Your task to perform on an android device: open app "Google Docs" (install if not already installed) Image 0: 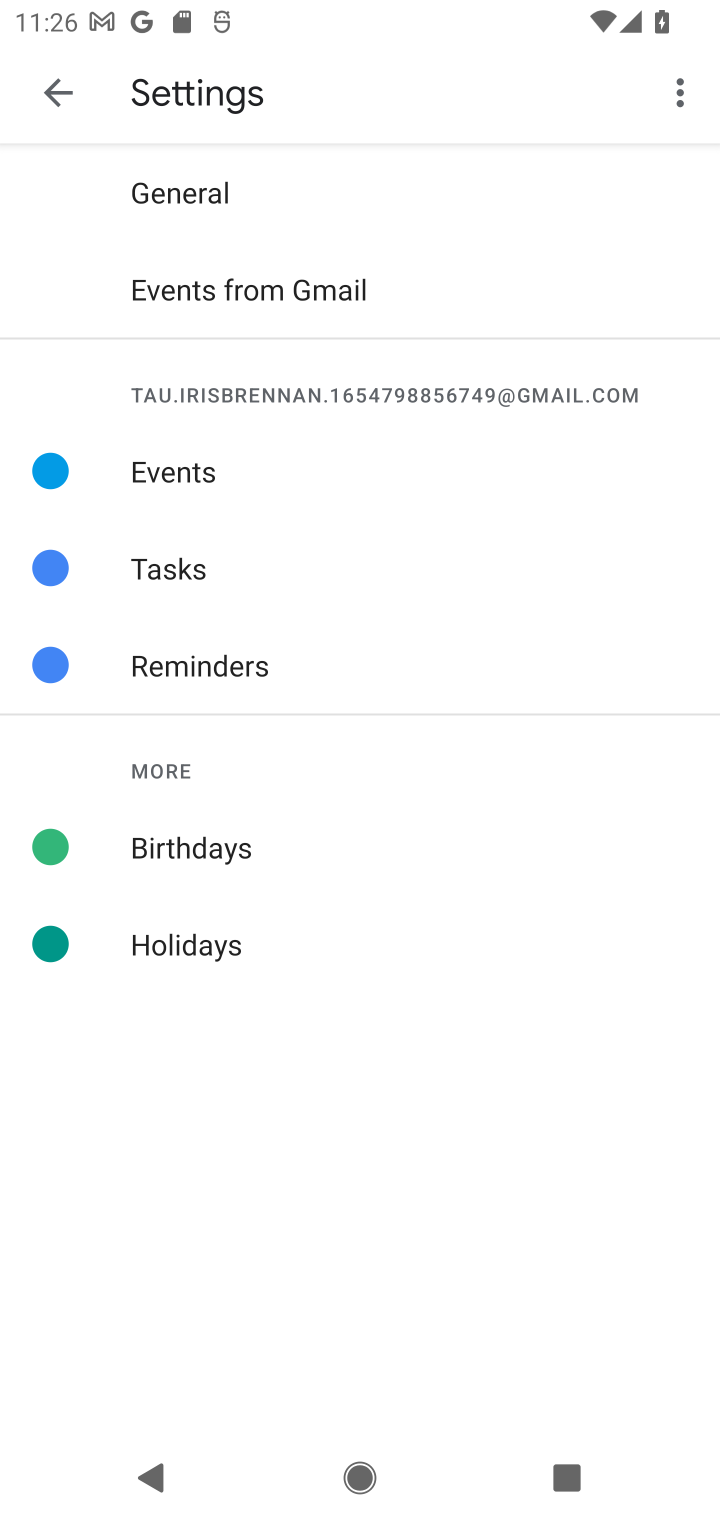
Step 0: press home button
Your task to perform on an android device: open app "Google Docs" (install if not already installed) Image 1: 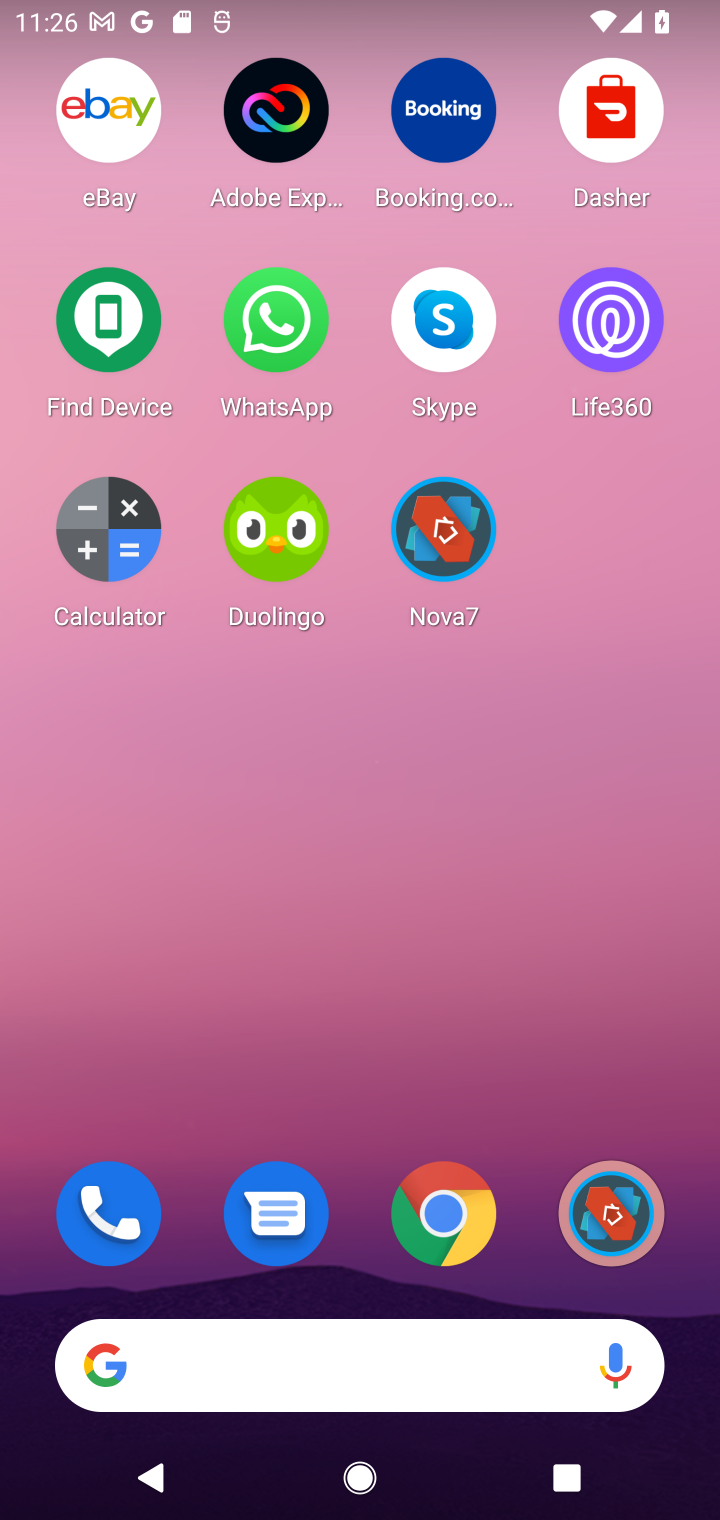
Step 1: drag from (290, 1321) to (328, 82)
Your task to perform on an android device: open app "Google Docs" (install if not already installed) Image 2: 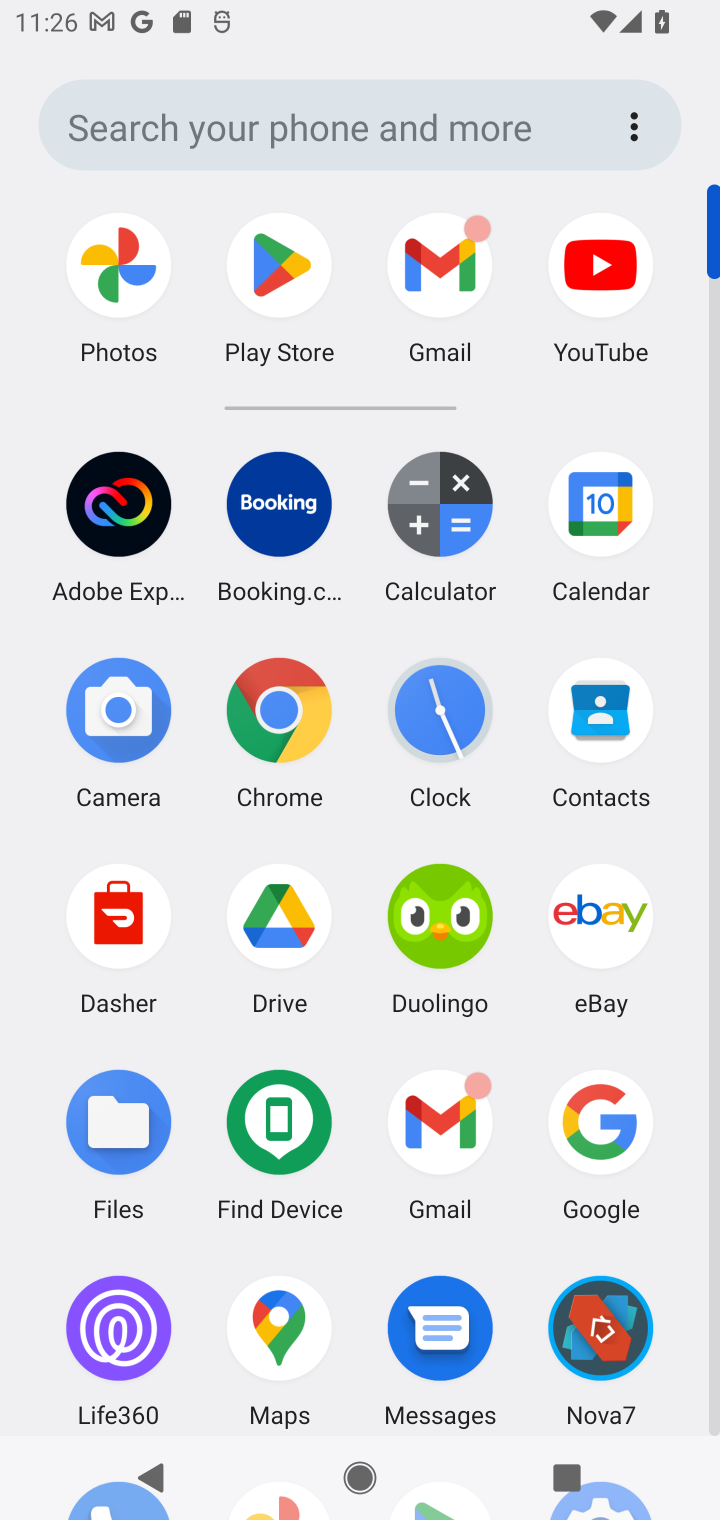
Step 2: click (287, 270)
Your task to perform on an android device: open app "Google Docs" (install if not already installed) Image 3: 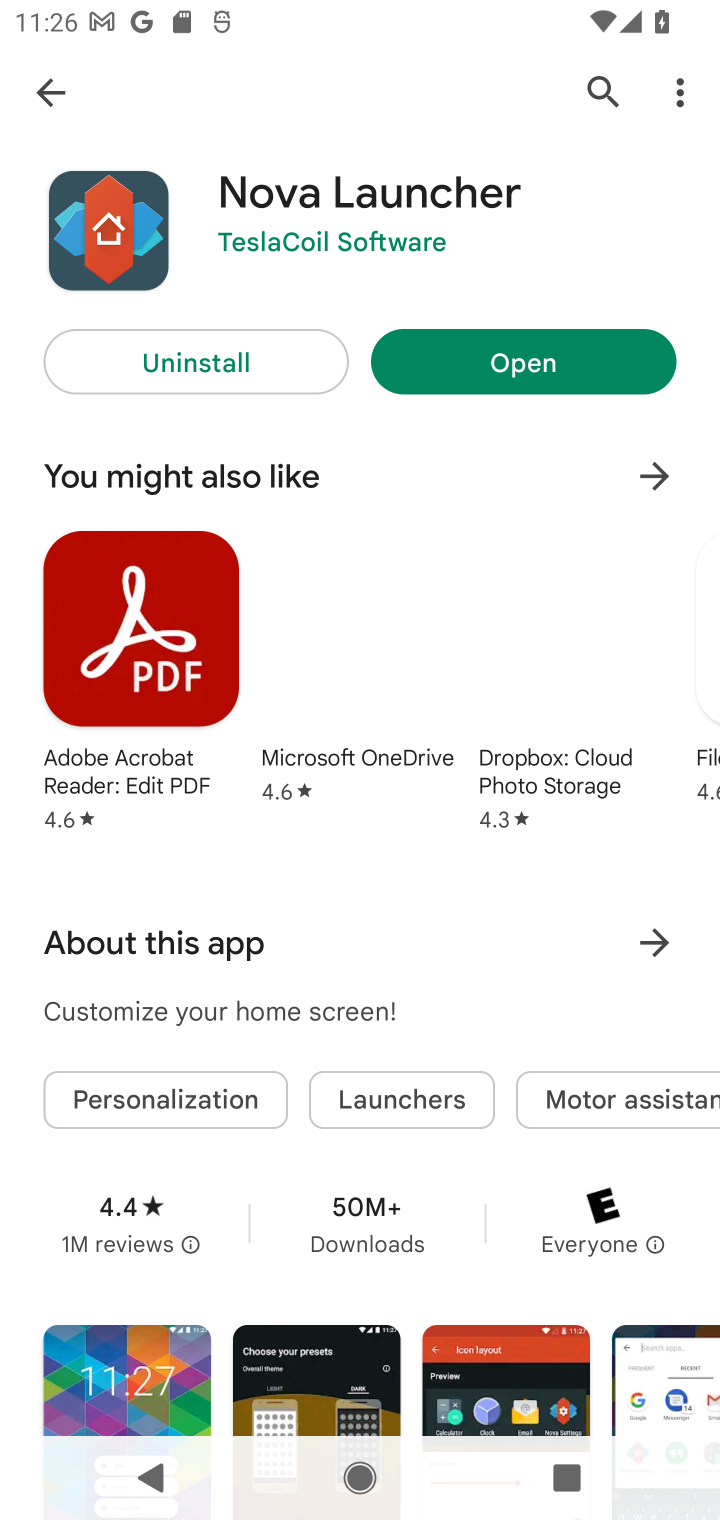
Step 3: press back button
Your task to perform on an android device: open app "Google Docs" (install if not already installed) Image 4: 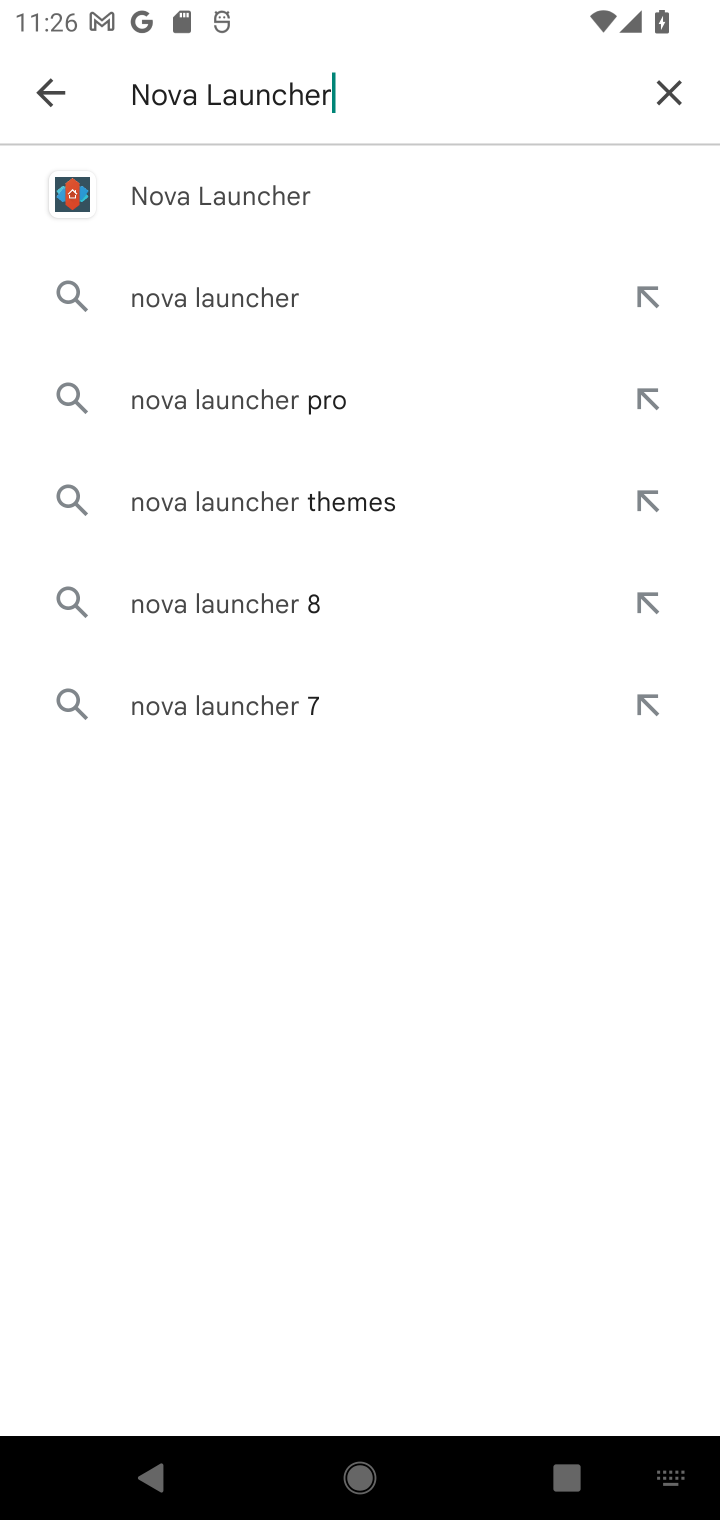
Step 4: press back button
Your task to perform on an android device: open app "Google Docs" (install if not already installed) Image 5: 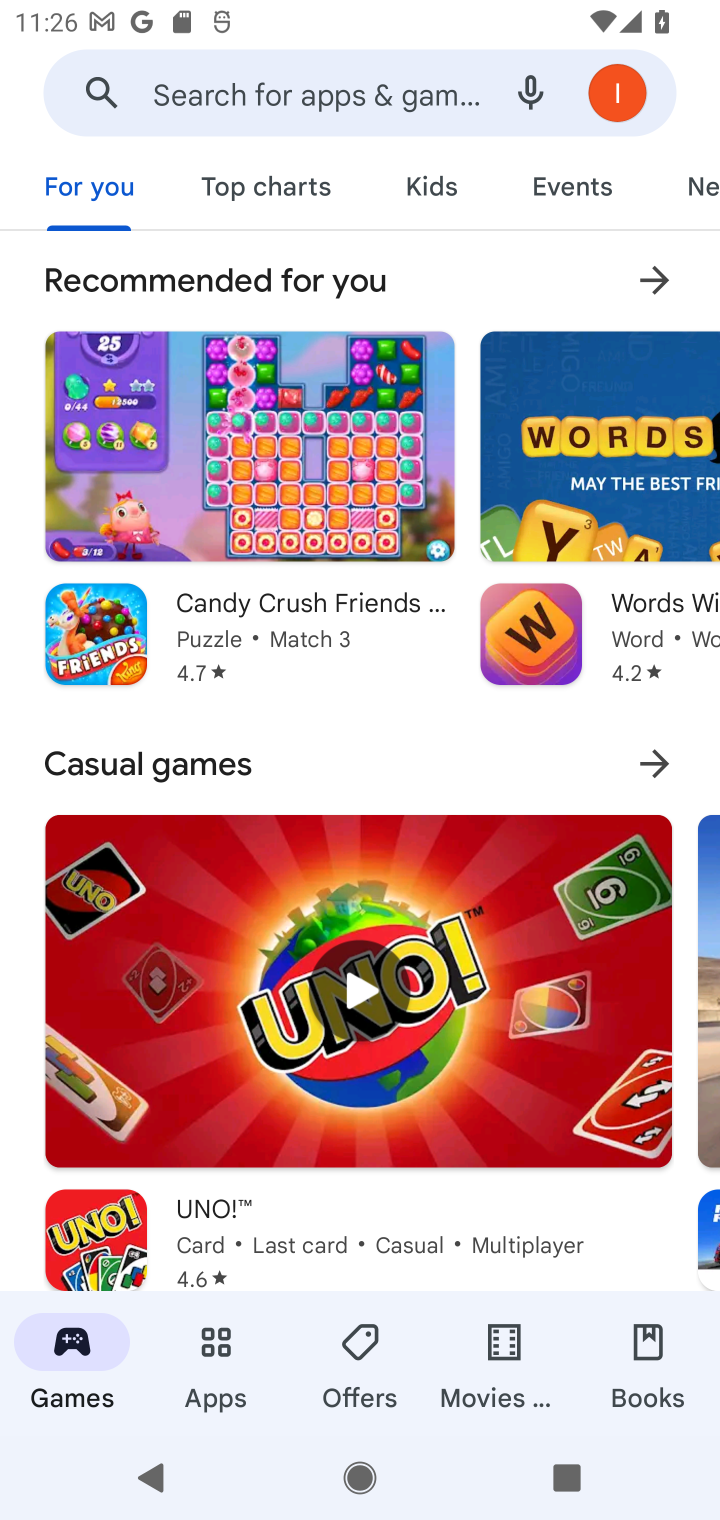
Step 5: click (412, 98)
Your task to perform on an android device: open app "Google Docs" (install if not already installed) Image 6: 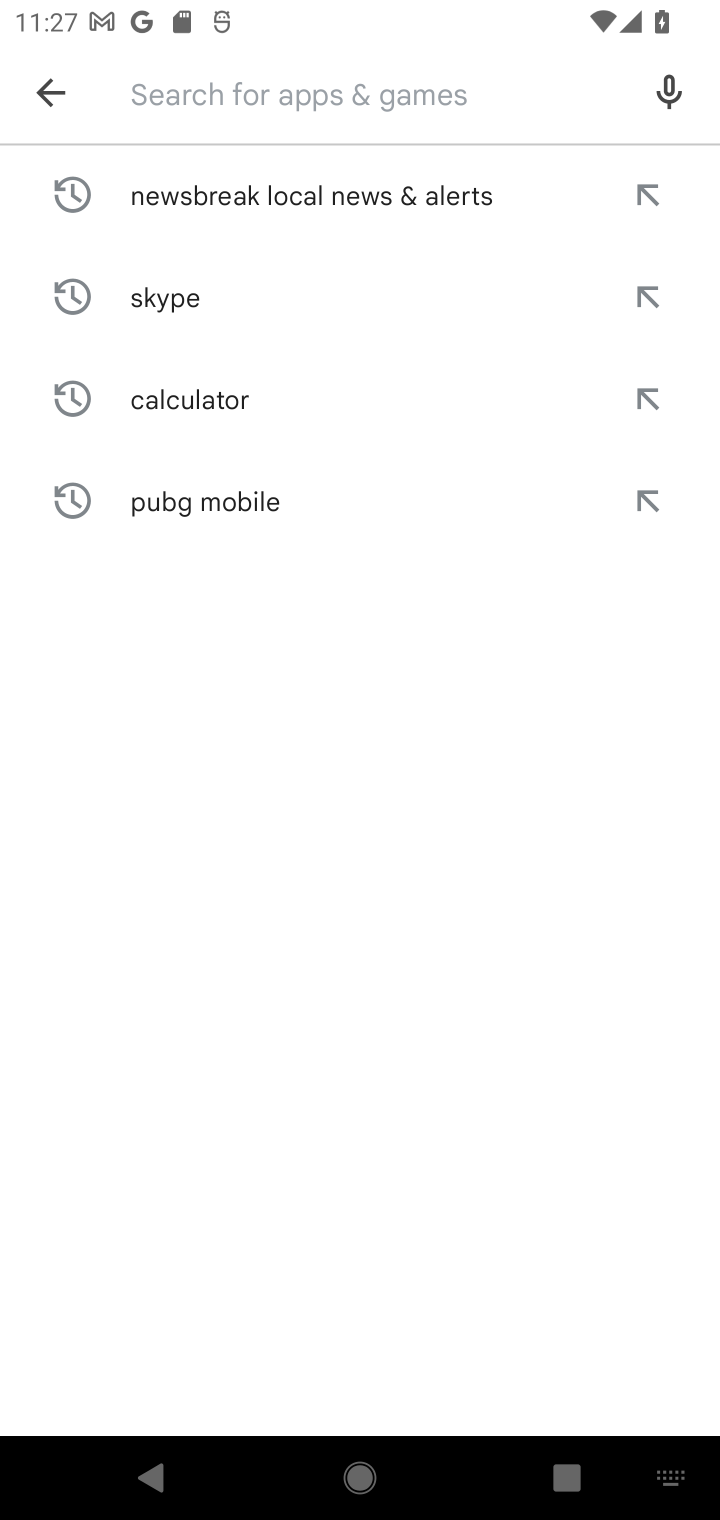
Step 6: type "Google Docs"
Your task to perform on an android device: open app "Google Docs" (install if not already installed) Image 7: 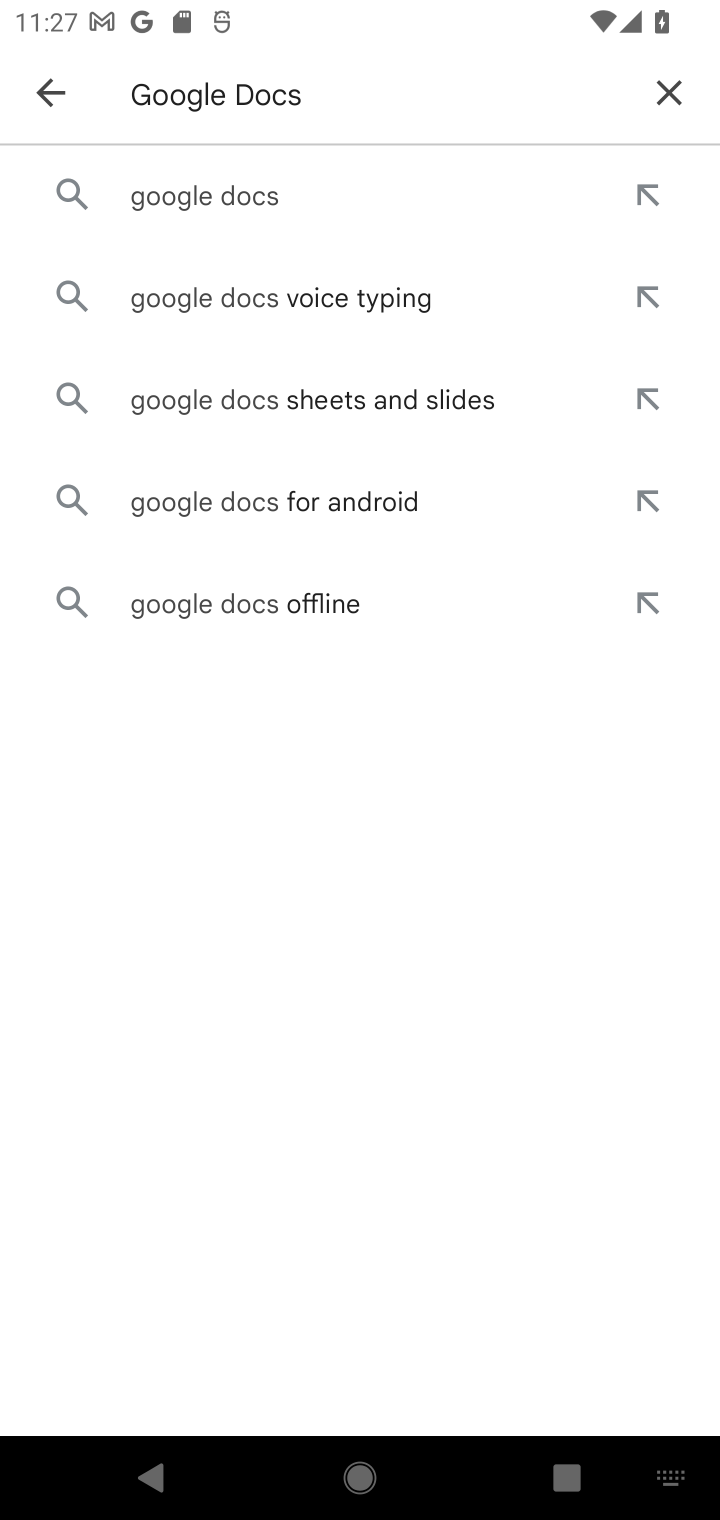
Step 7: click (233, 209)
Your task to perform on an android device: open app "Google Docs" (install if not already installed) Image 8: 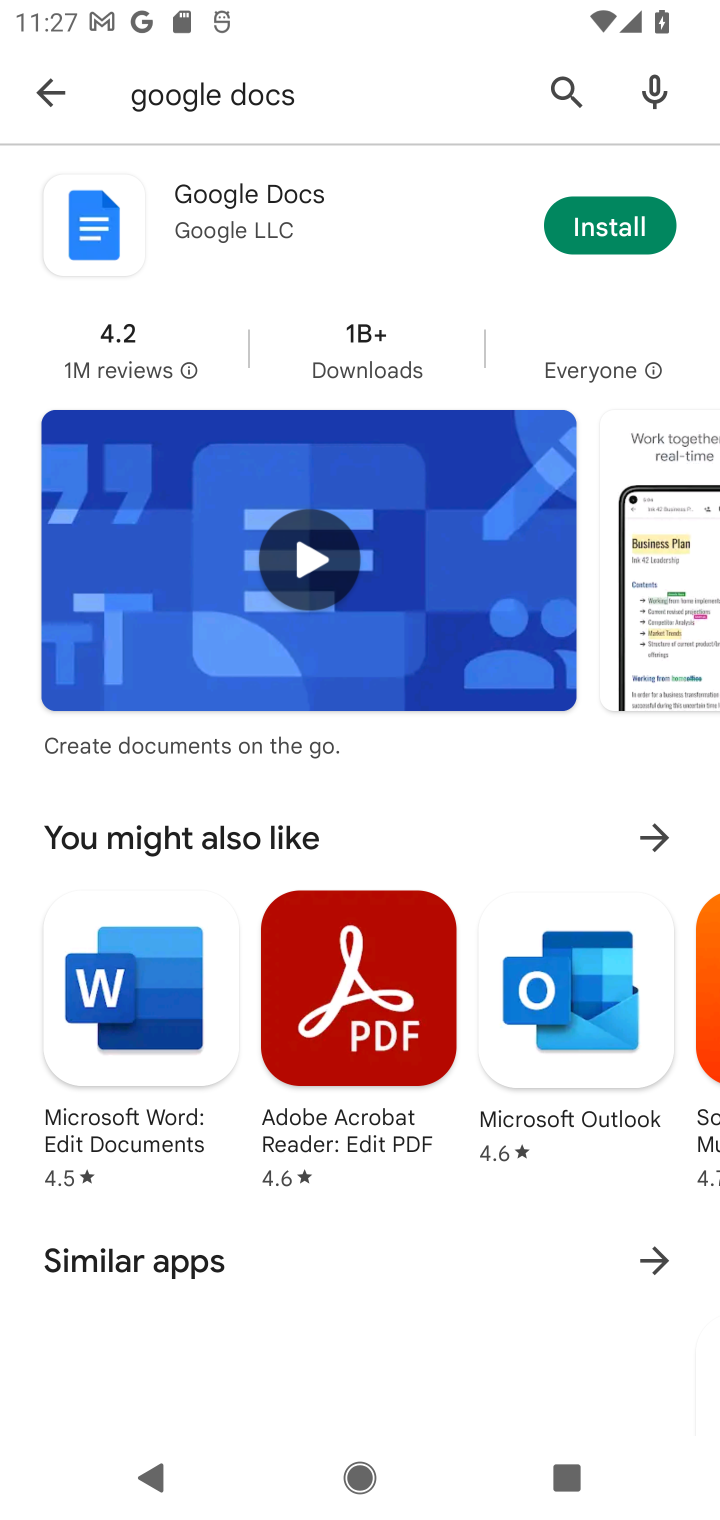
Step 8: click (620, 246)
Your task to perform on an android device: open app "Google Docs" (install if not already installed) Image 9: 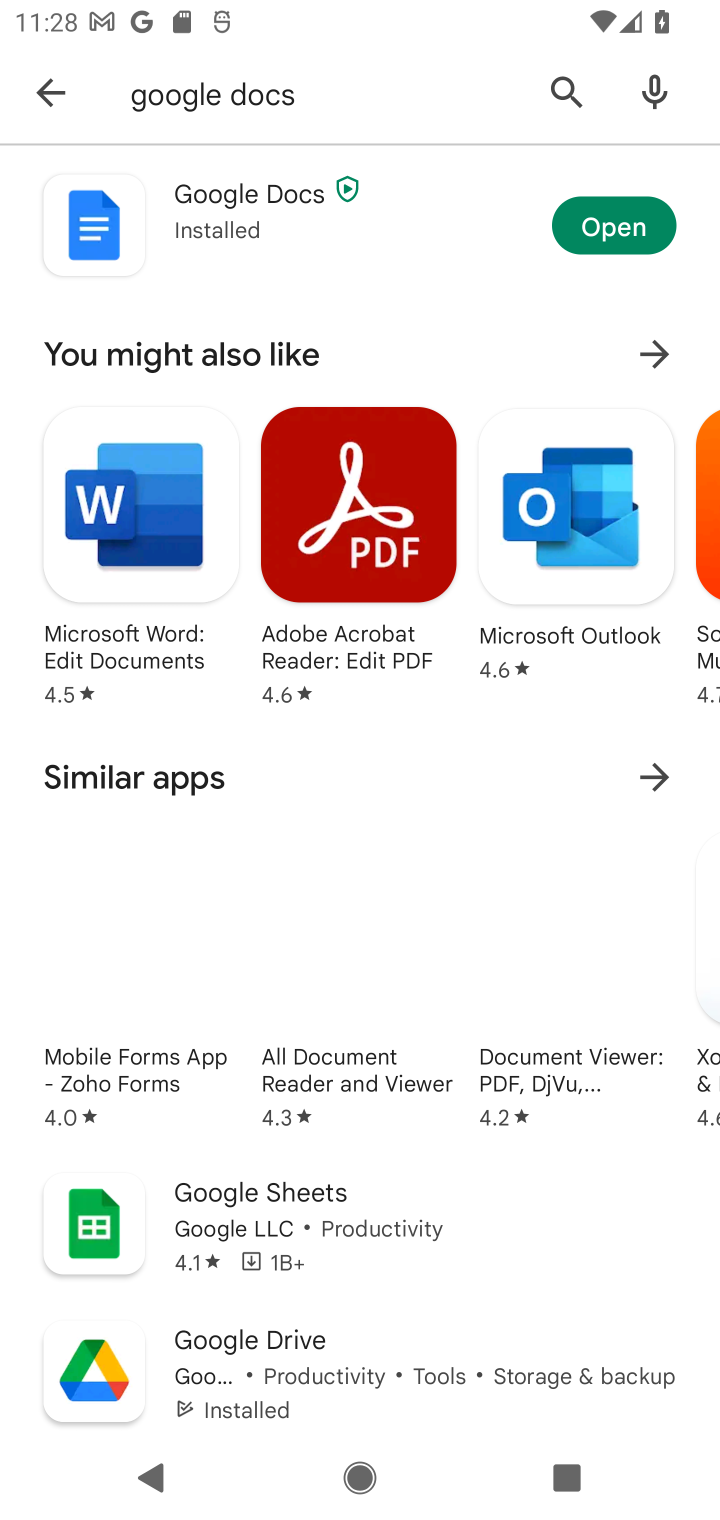
Step 9: click (635, 223)
Your task to perform on an android device: open app "Google Docs" (install if not already installed) Image 10: 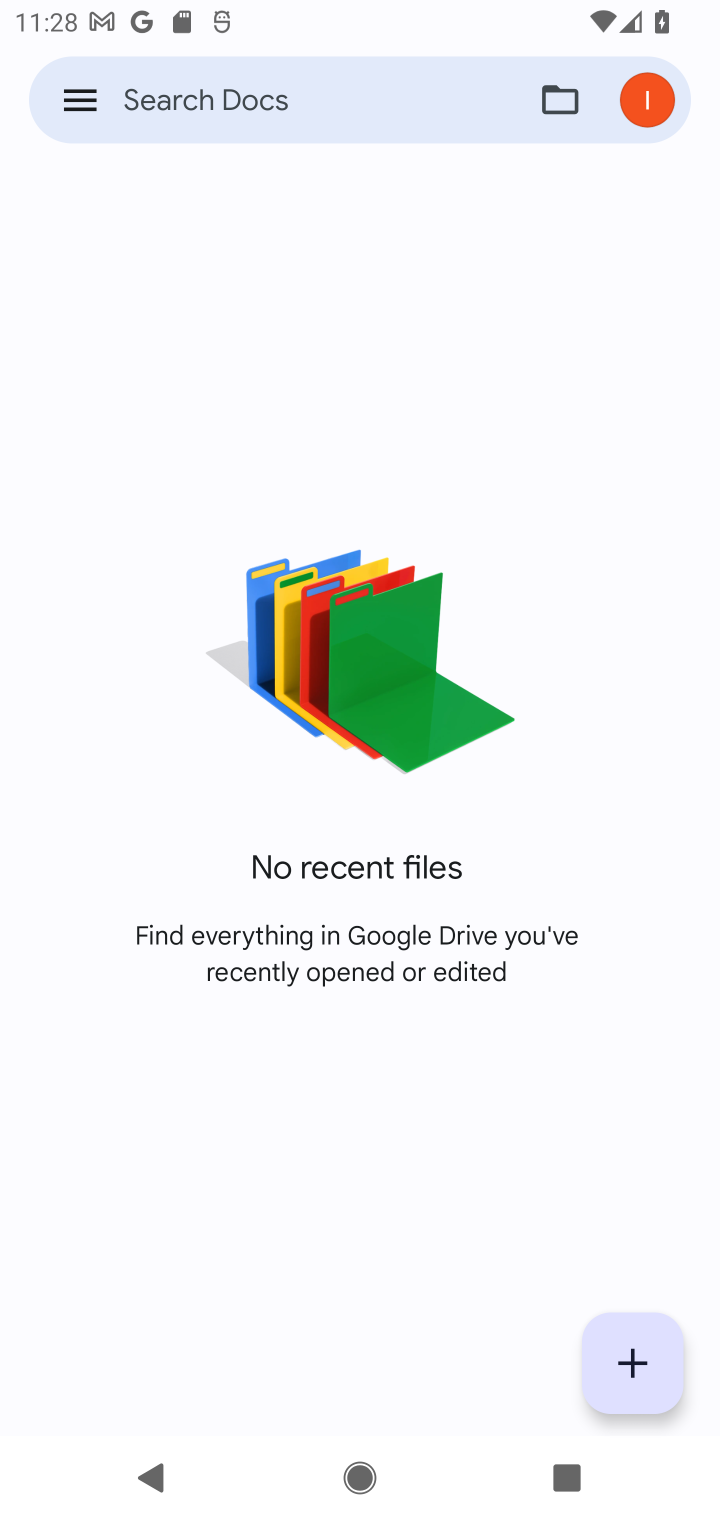
Step 10: task complete